Your task to perform on an android device: View the shopping cart on walmart.com. Add "macbook" to the cart on walmart.com, then select checkout. Image 0: 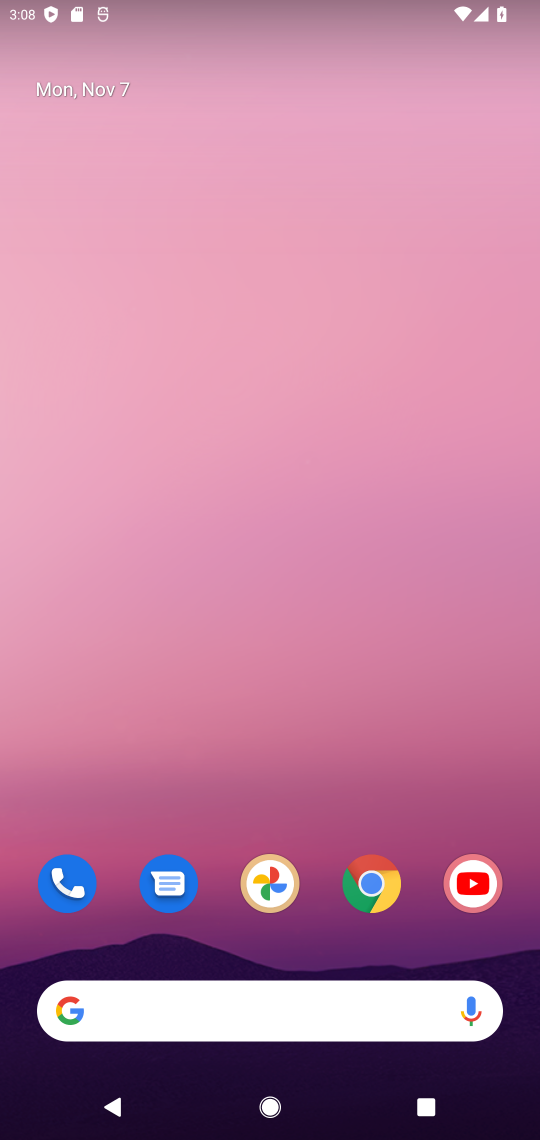
Step 0: click (370, 890)
Your task to perform on an android device: View the shopping cart on walmart.com. Add "macbook" to the cart on walmart.com, then select checkout. Image 1: 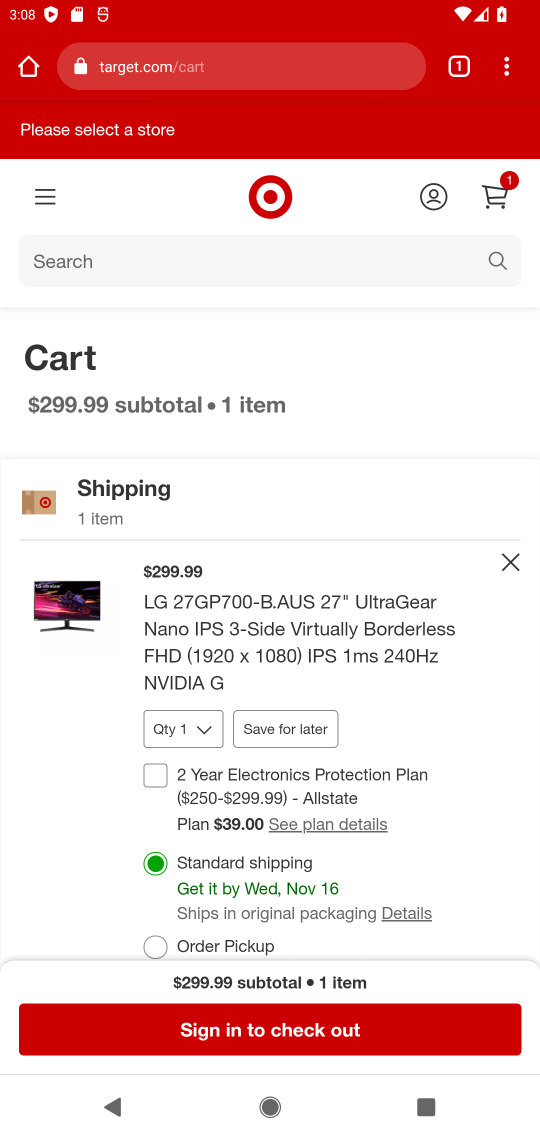
Step 1: click (314, 66)
Your task to perform on an android device: View the shopping cart on walmart.com. Add "macbook" to the cart on walmart.com, then select checkout. Image 2: 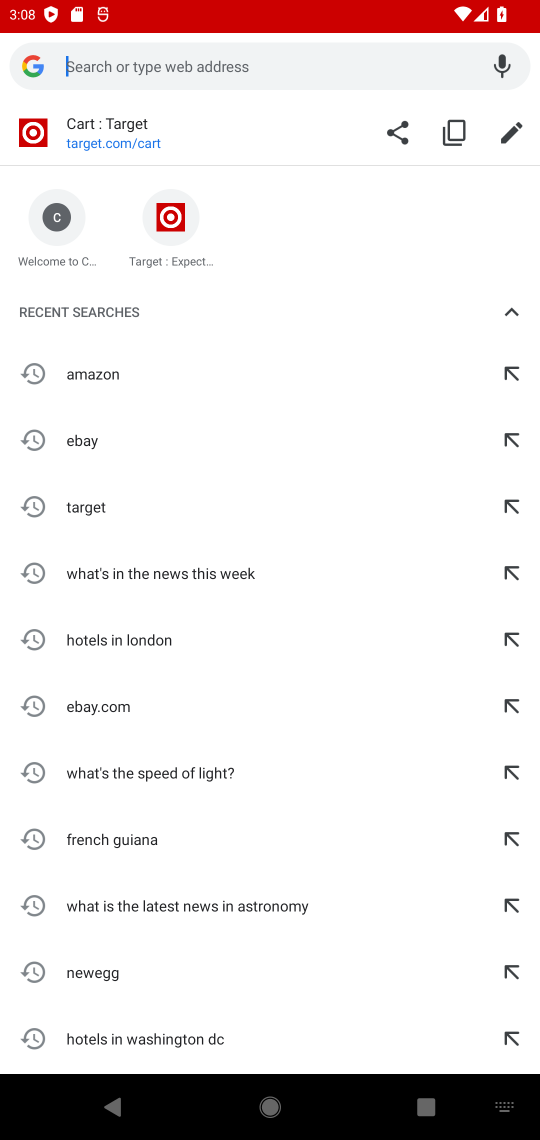
Step 2: type " walmart.com"
Your task to perform on an android device: View the shopping cart on walmart.com. Add "macbook" to the cart on walmart.com, then select checkout. Image 3: 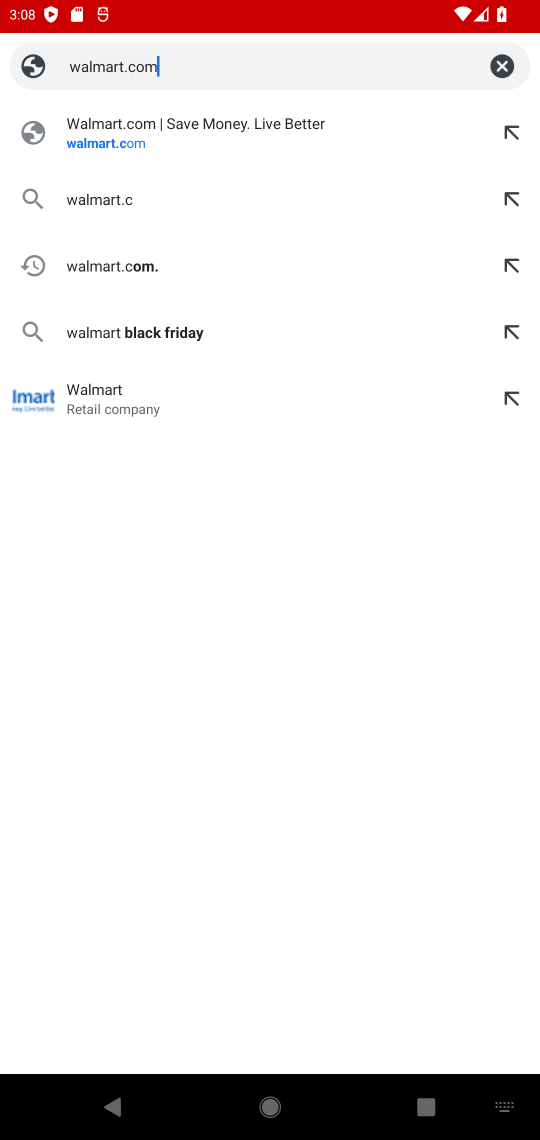
Step 3: press enter
Your task to perform on an android device: View the shopping cart on walmart.com. Add "macbook" to the cart on walmart.com, then select checkout. Image 4: 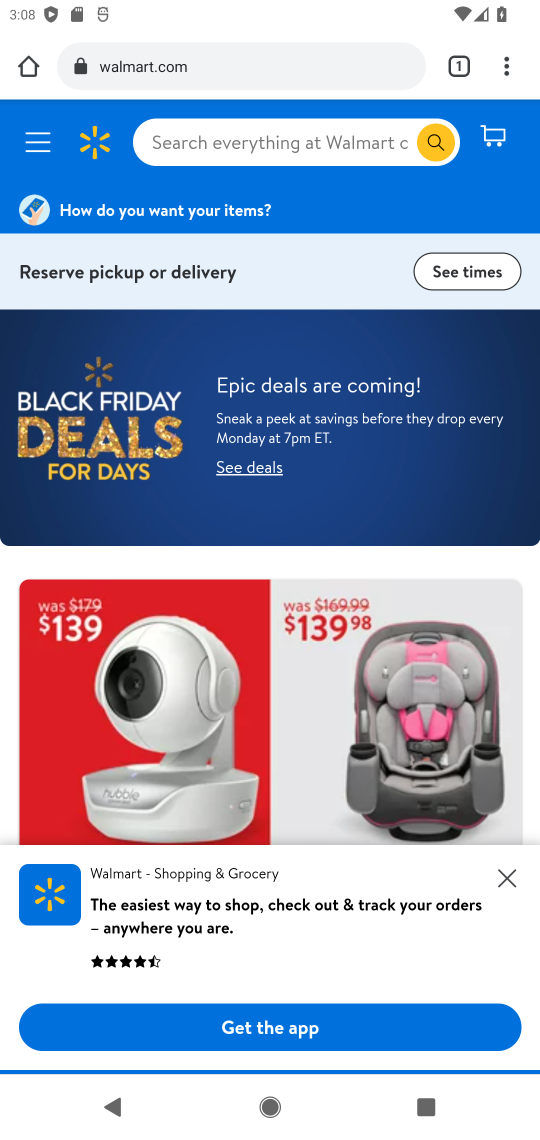
Step 4: click (240, 136)
Your task to perform on an android device: View the shopping cart on walmart.com. Add "macbook" to the cart on walmart.com, then select checkout. Image 5: 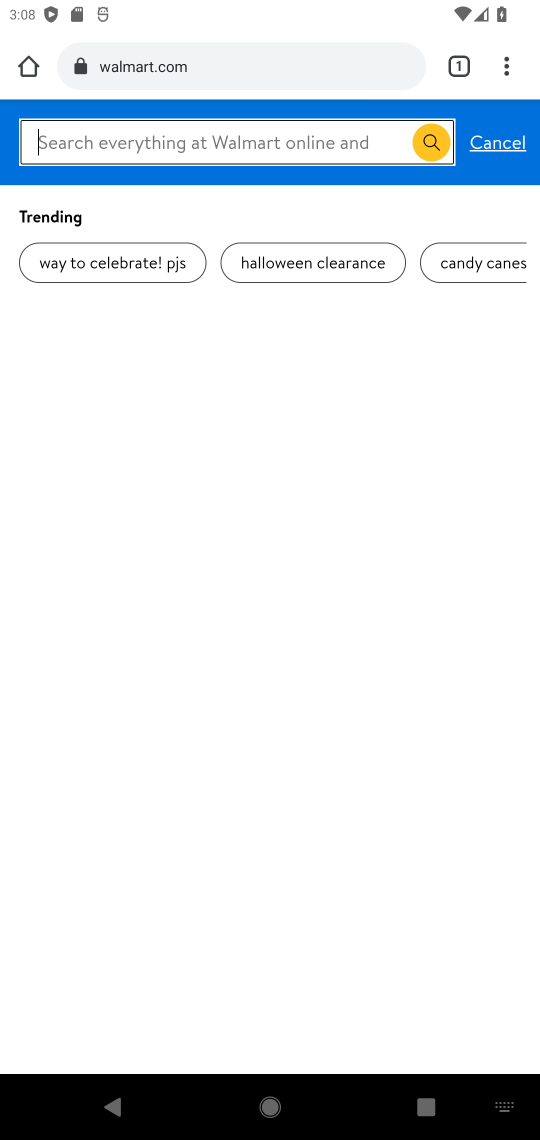
Step 5: click (215, 136)
Your task to perform on an android device: View the shopping cart on walmart.com. Add "macbook" to the cart on walmart.com, then select checkout. Image 6: 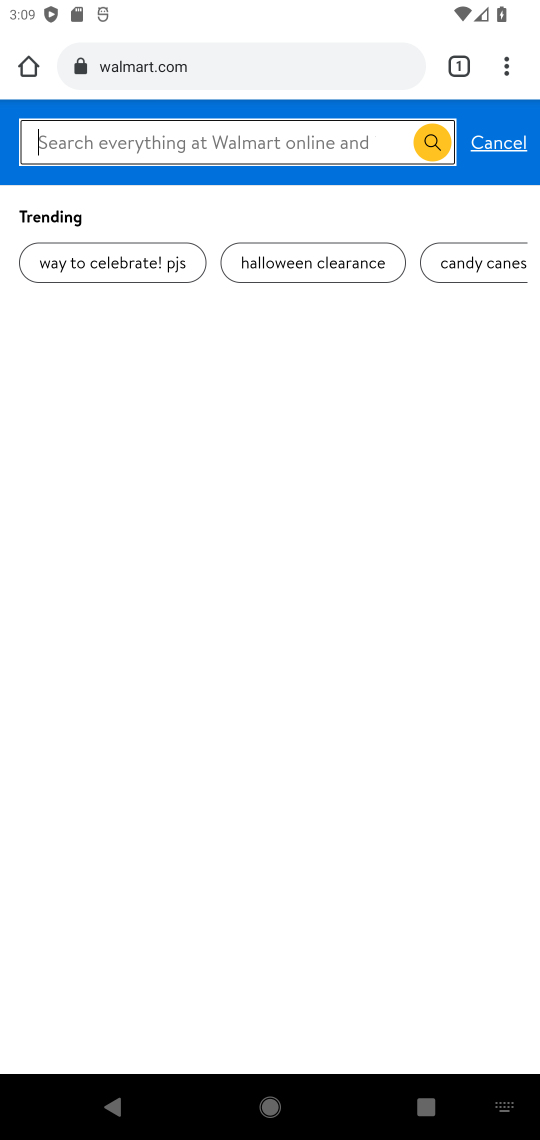
Step 6: type "macbook"
Your task to perform on an android device: View the shopping cart on walmart.com. Add "macbook" to the cart on walmart.com, then select checkout. Image 7: 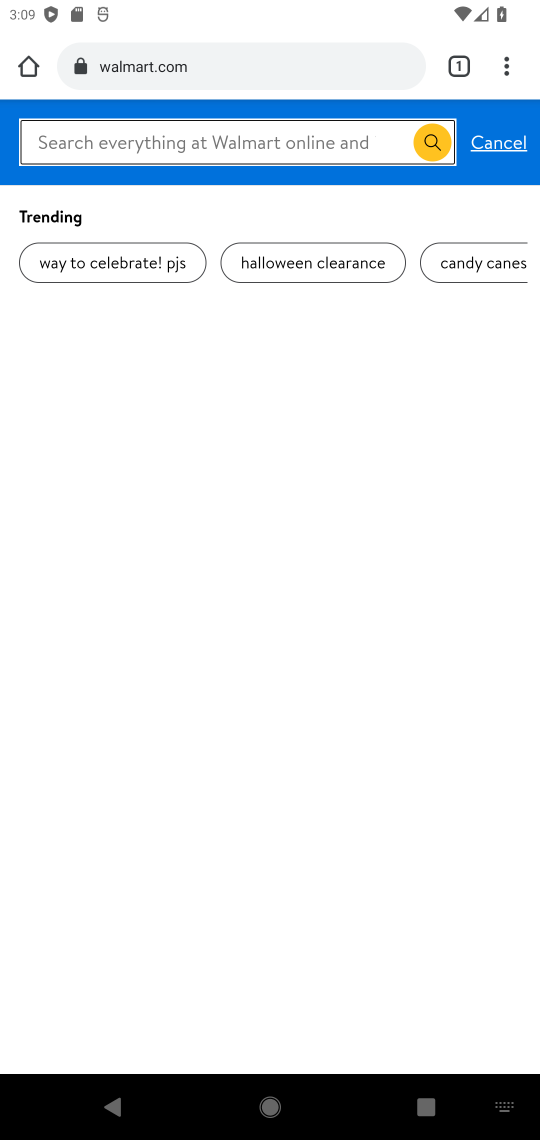
Step 7: press enter
Your task to perform on an android device: View the shopping cart on walmart.com. Add "macbook" to the cart on walmart.com, then select checkout. Image 8: 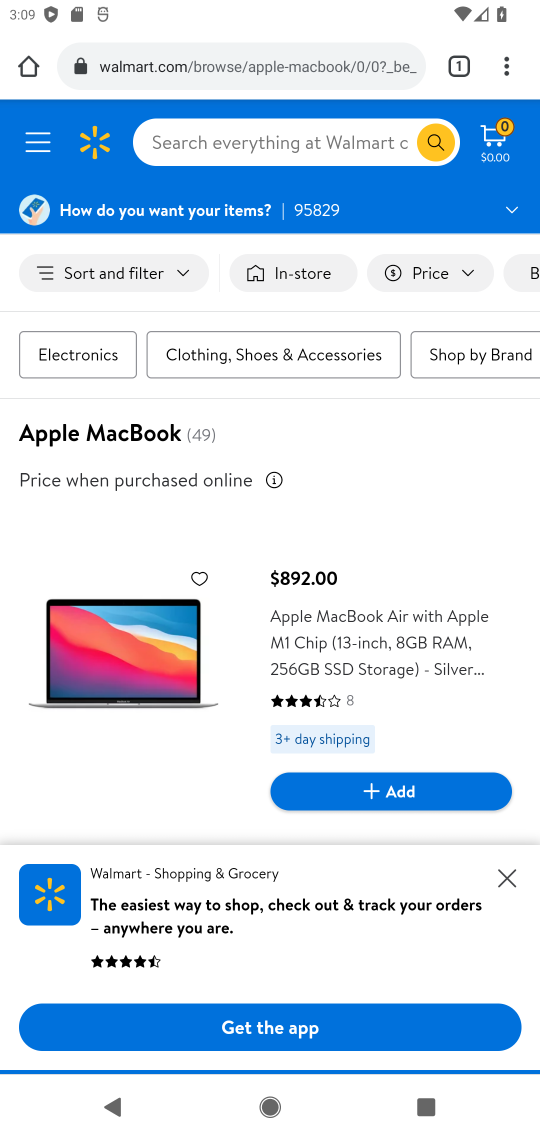
Step 8: click (507, 874)
Your task to perform on an android device: View the shopping cart on walmart.com. Add "macbook" to the cart on walmart.com, then select checkout. Image 9: 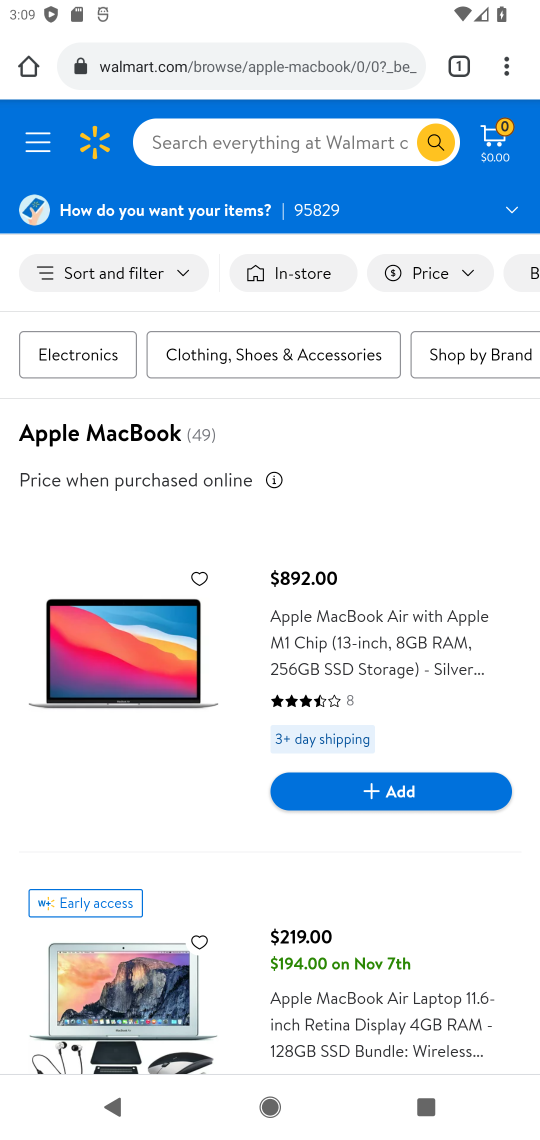
Step 9: click (396, 792)
Your task to perform on an android device: View the shopping cart on walmart.com. Add "macbook" to the cart on walmart.com, then select checkout. Image 10: 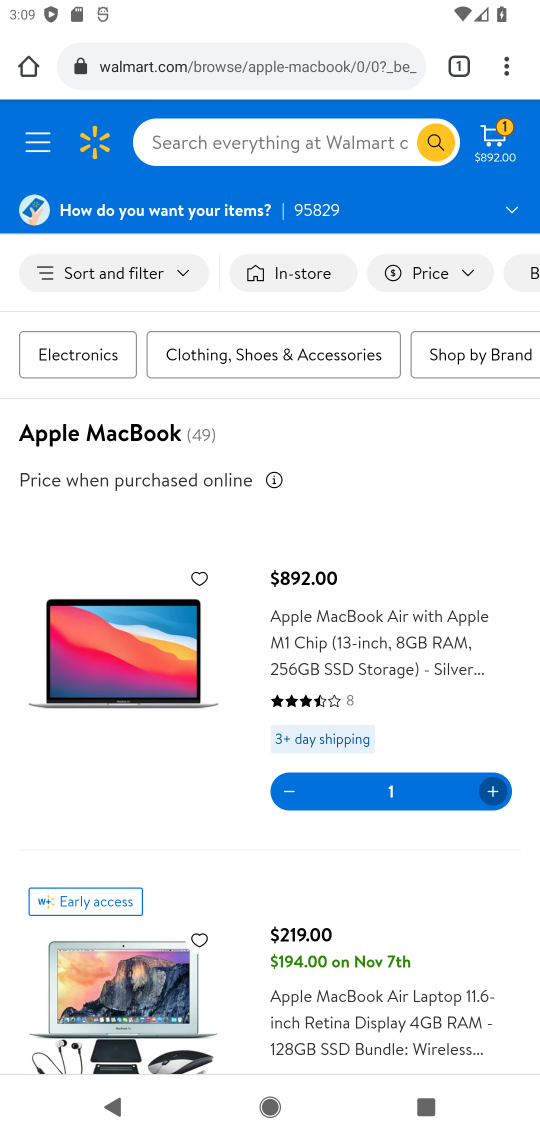
Step 10: click (496, 135)
Your task to perform on an android device: View the shopping cart on walmart.com. Add "macbook" to the cart on walmart.com, then select checkout. Image 11: 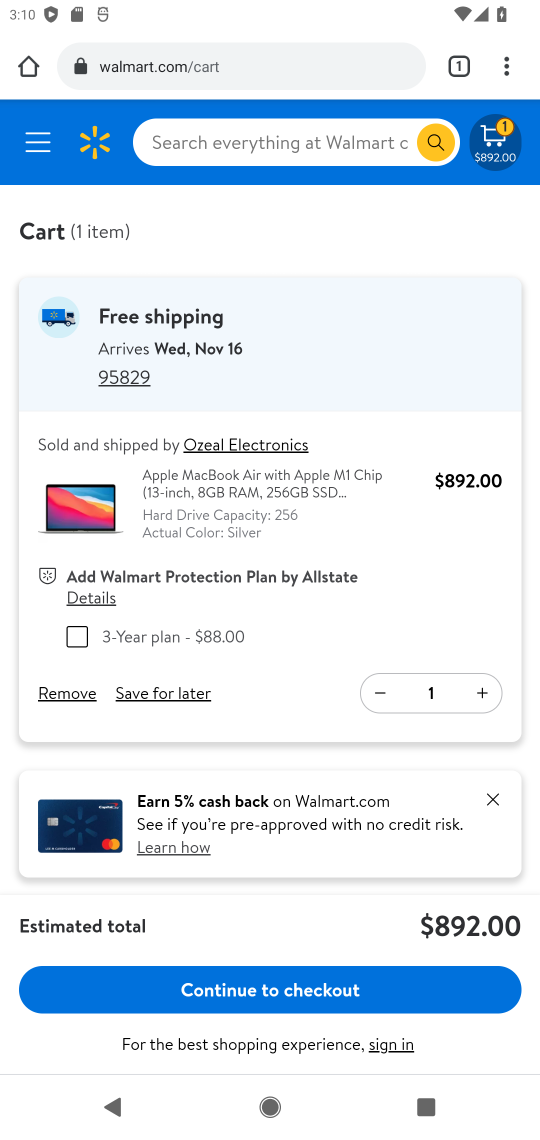
Step 11: click (267, 998)
Your task to perform on an android device: View the shopping cart on walmart.com. Add "macbook" to the cart on walmart.com, then select checkout. Image 12: 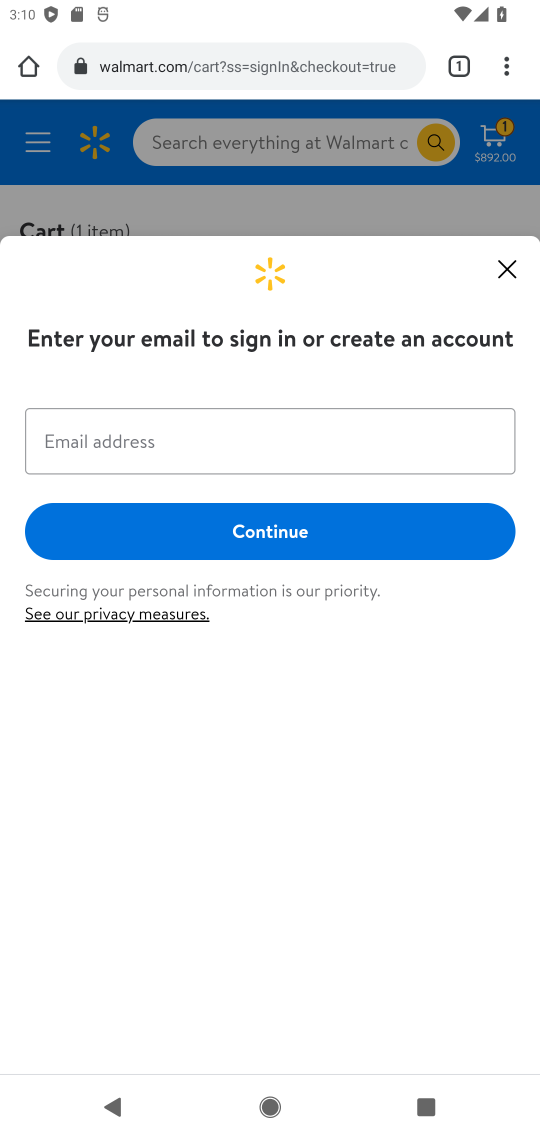
Step 12: task complete